Your task to perform on an android device: turn pop-ups off in chrome Image 0: 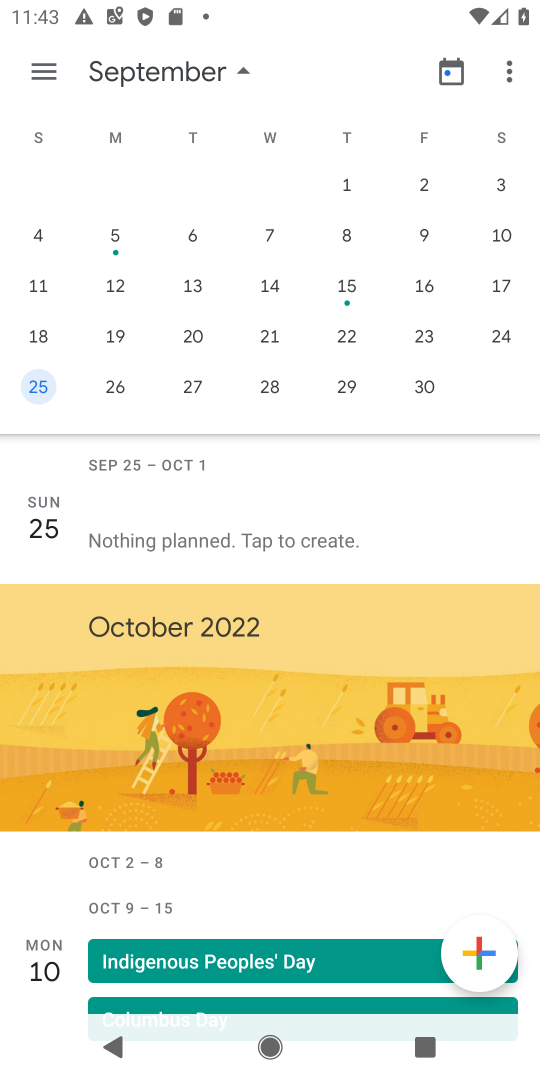
Step 0: press home button
Your task to perform on an android device: turn pop-ups off in chrome Image 1: 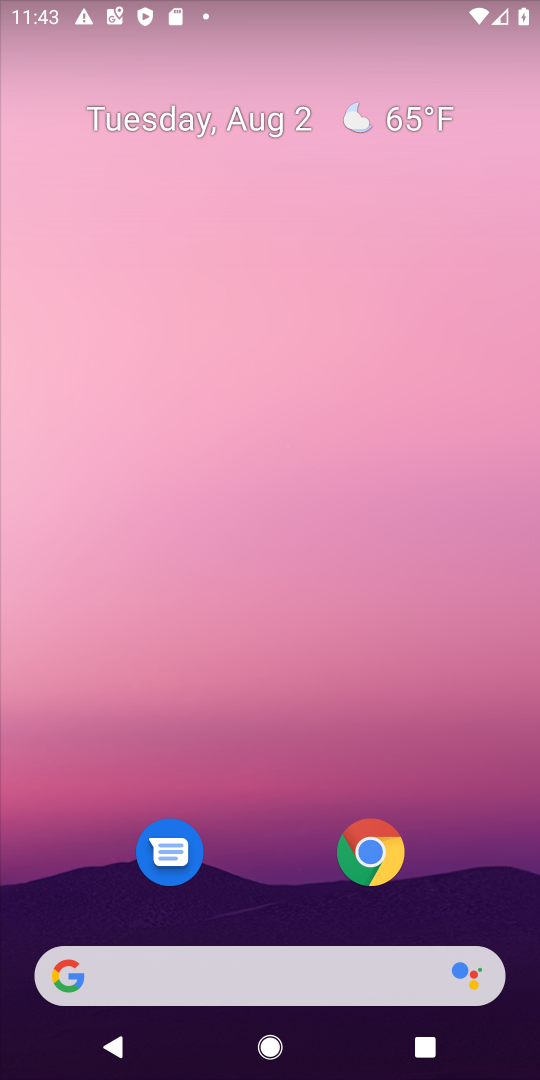
Step 1: drag from (466, 879) to (316, 39)
Your task to perform on an android device: turn pop-ups off in chrome Image 2: 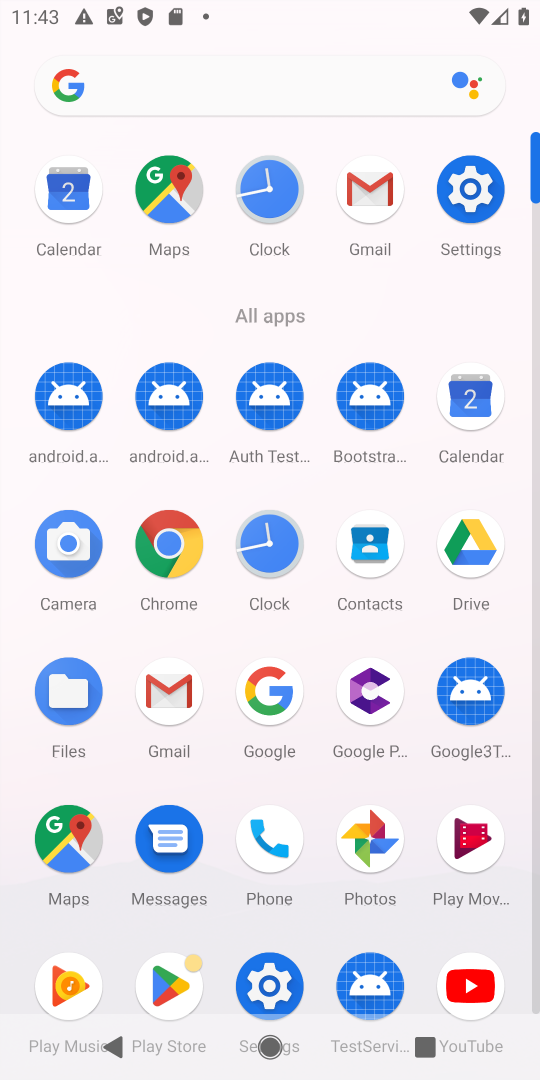
Step 2: click (165, 572)
Your task to perform on an android device: turn pop-ups off in chrome Image 3: 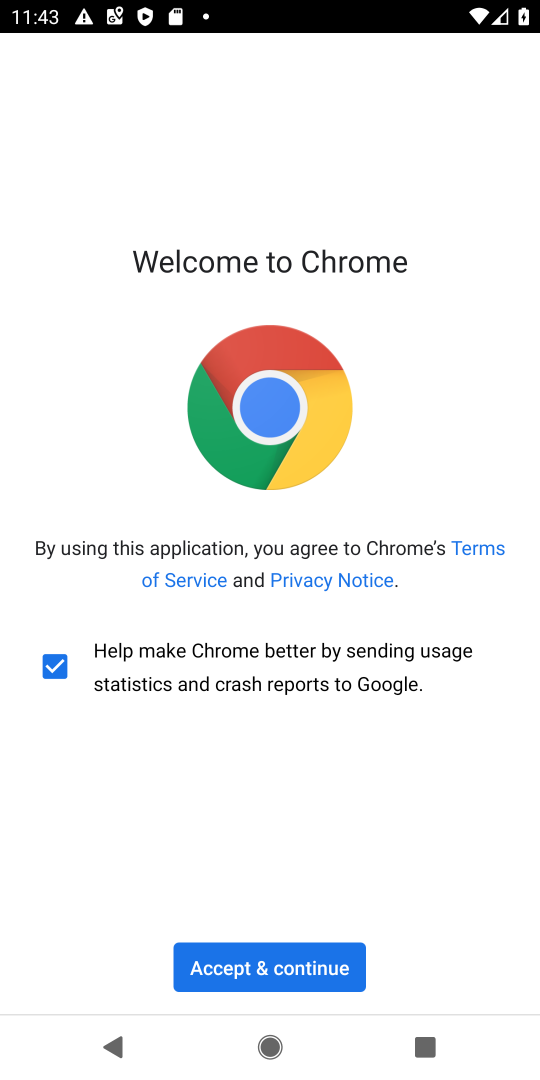
Step 3: click (225, 953)
Your task to perform on an android device: turn pop-ups off in chrome Image 4: 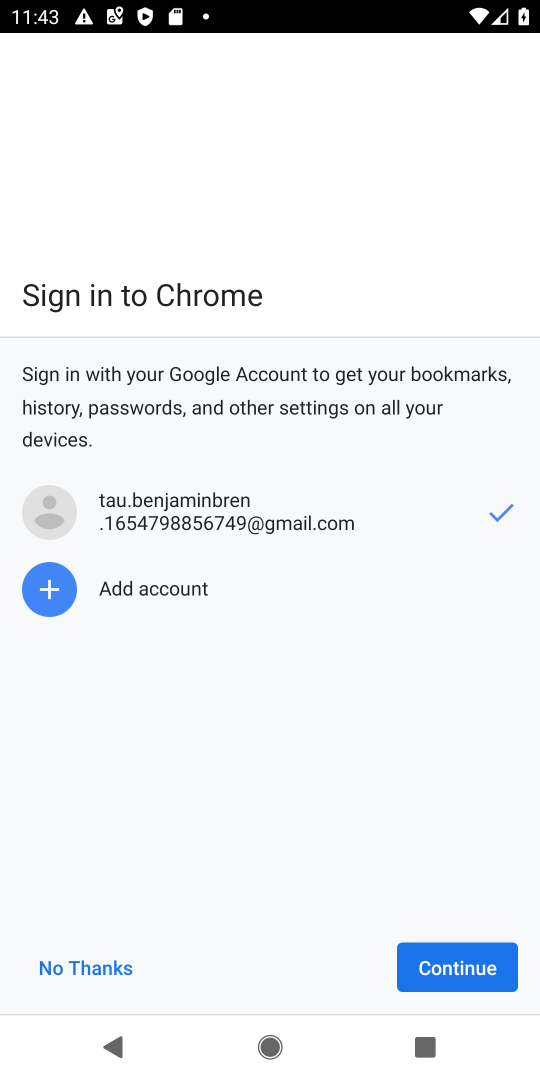
Step 4: click (446, 966)
Your task to perform on an android device: turn pop-ups off in chrome Image 5: 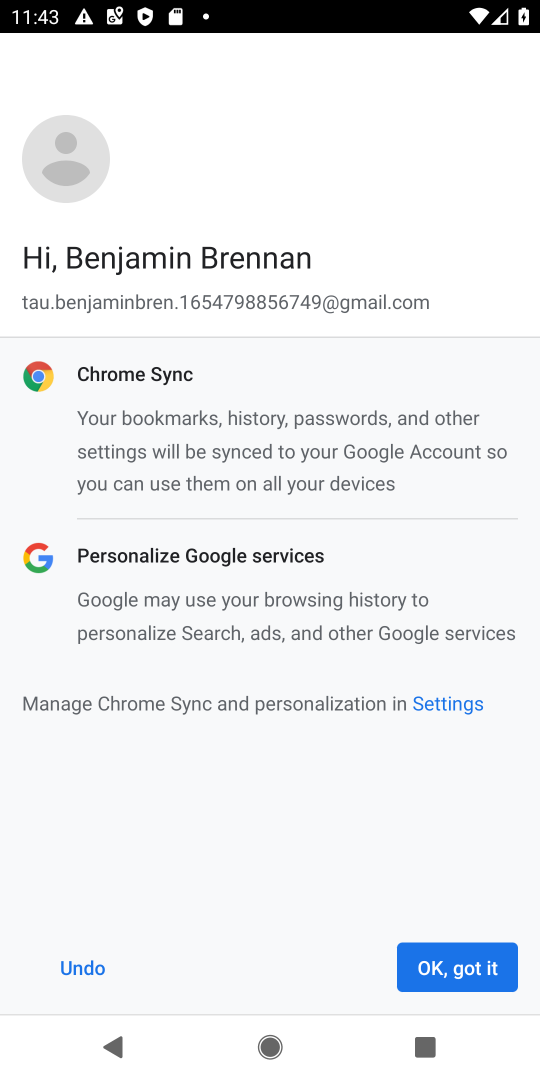
Step 5: click (446, 966)
Your task to perform on an android device: turn pop-ups off in chrome Image 6: 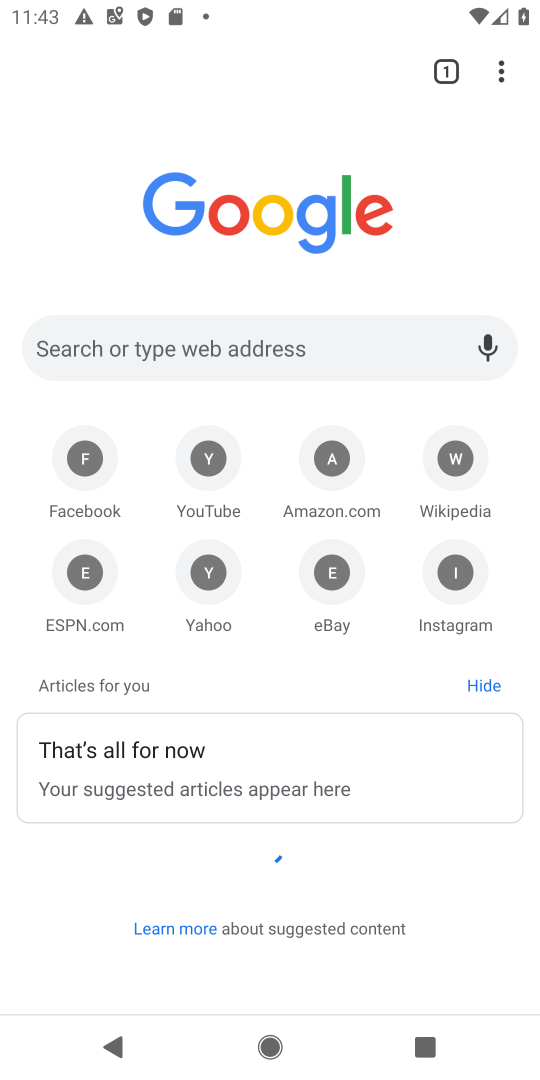
Step 6: click (501, 67)
Your task to perform on an android device: turn pop-ups off in chrome Image 7: 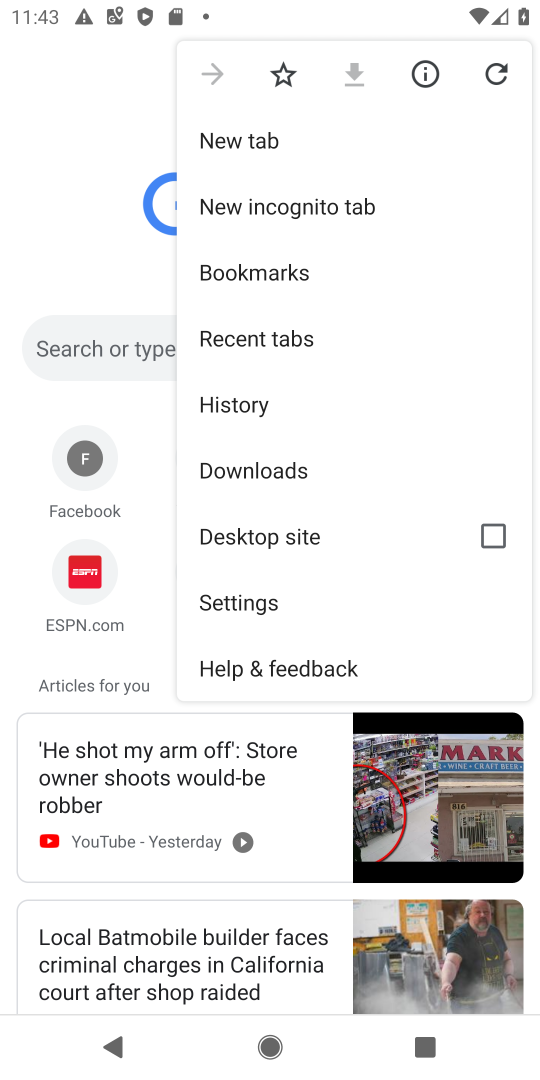
Step 7: click (250, 612)
Your task to perform on an android device: turn pop-ups off in chrome Image 8: 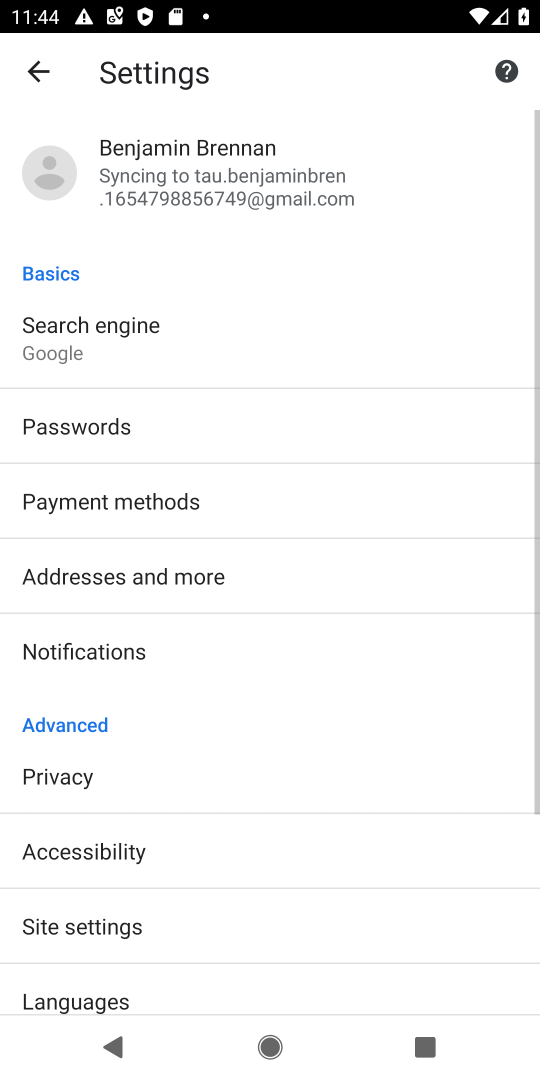
Step 8: click (106, 928)
Your task to perform on an android device: turn pop-ups off in chrome Image 9: 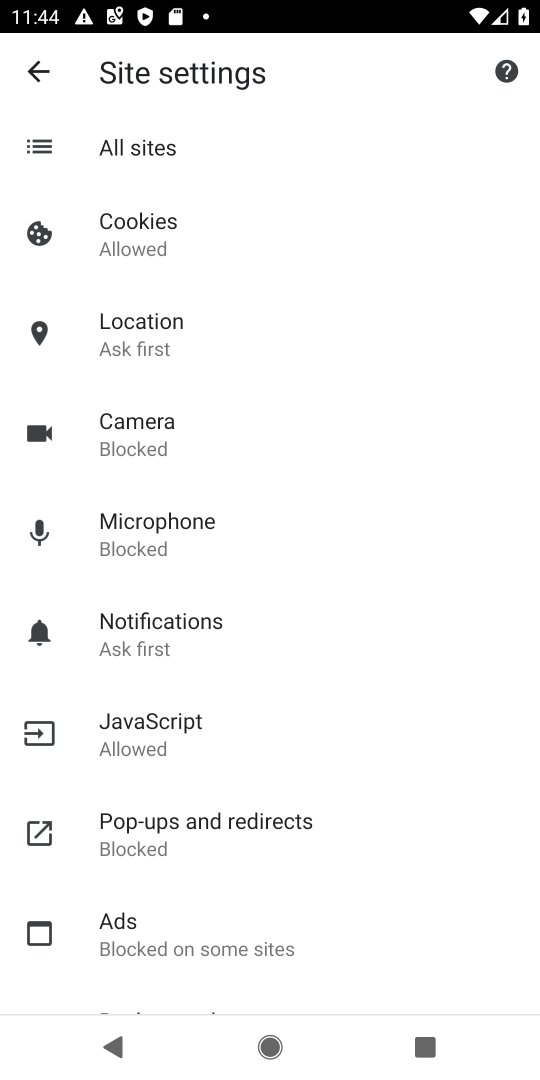
Step 9: click (196, 814)
Your task to perform on an android device: turn pop-ups off in chrome Image 10: 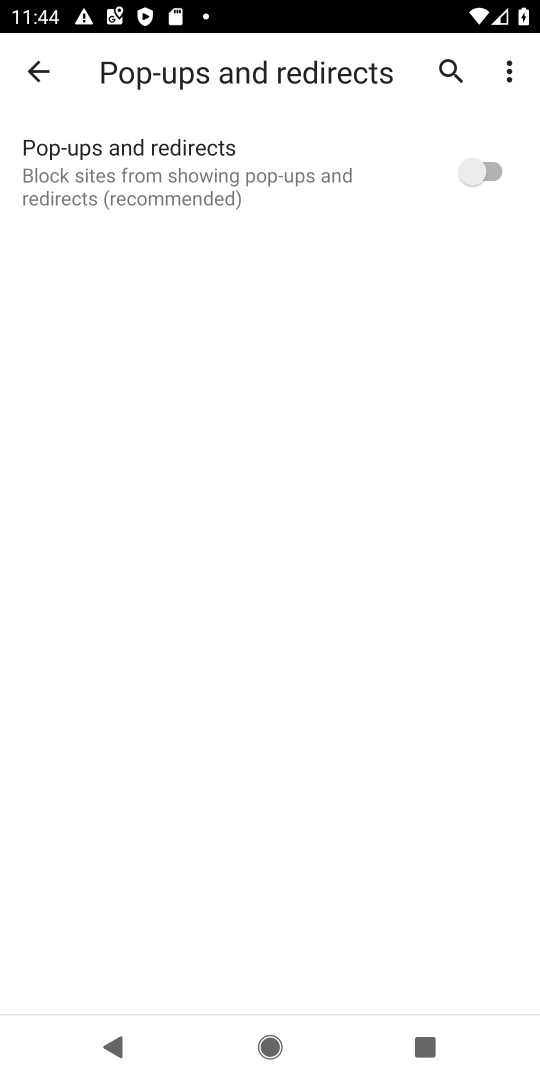
Step 10: task complete